Your task to perform on an android device: delete the emails in spam in the gmail app Image 0: 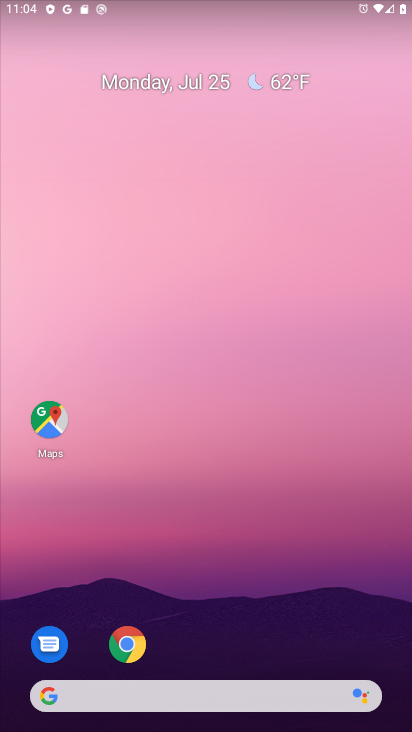
Step 0: drag from (302, 624) to (286, 216)
Your task to perform on an android device: delete the emails in spam in the gmail app Image 1: 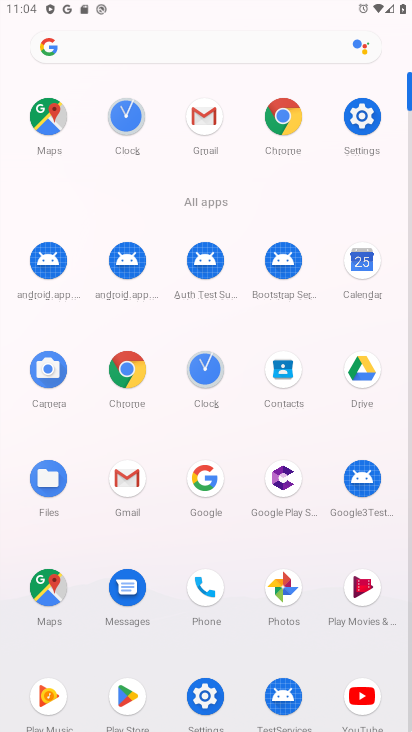
Step 1: click (200, 133)
Your task to perform on an android device: delete the emails in spam in the gmail app Image 2: 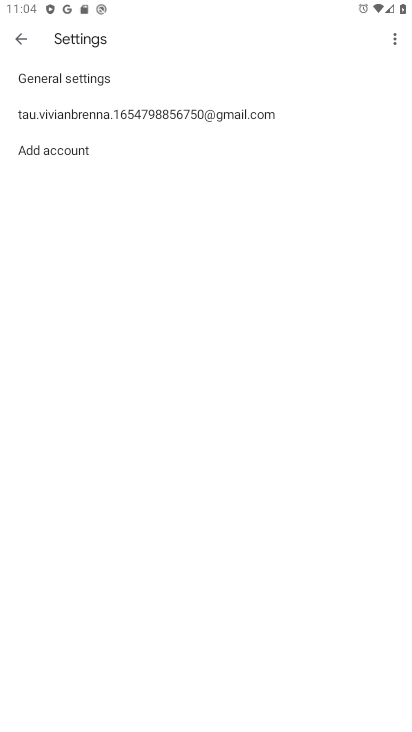
Step 2: click (28, 38)
Your task to perform on an android device: delete the emails in spam in the gmail app Image 3: 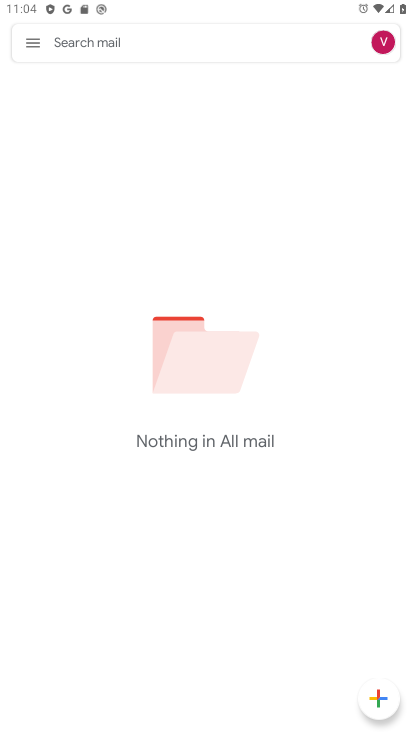
Step 3: click (28, 38)
Your task to perform on an android device: delete the emails in spam in the gmail app Image 4: 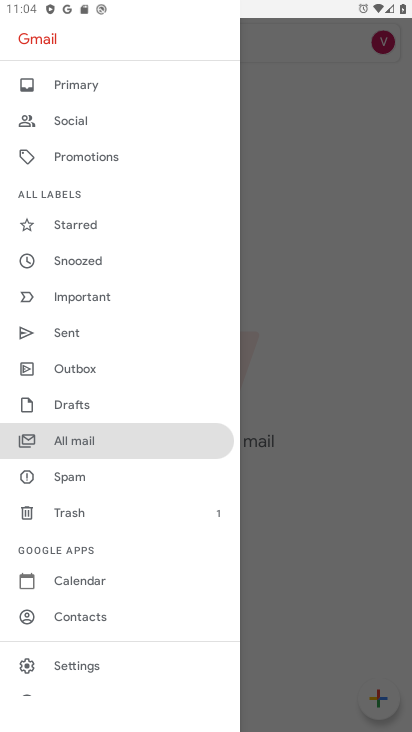
Step 4: click (93, 480)
Your task to perform on an android device: delete the emails in spam in the gmail app Image 5: 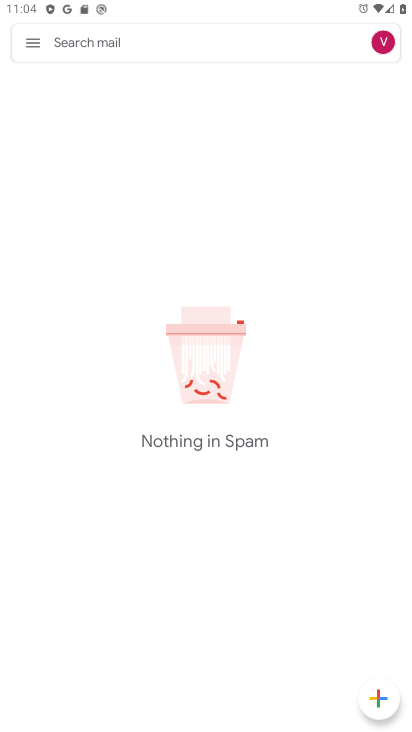
Step 5: task complete